Your task to perform on an android device: change the upload size in google photos Image 0: 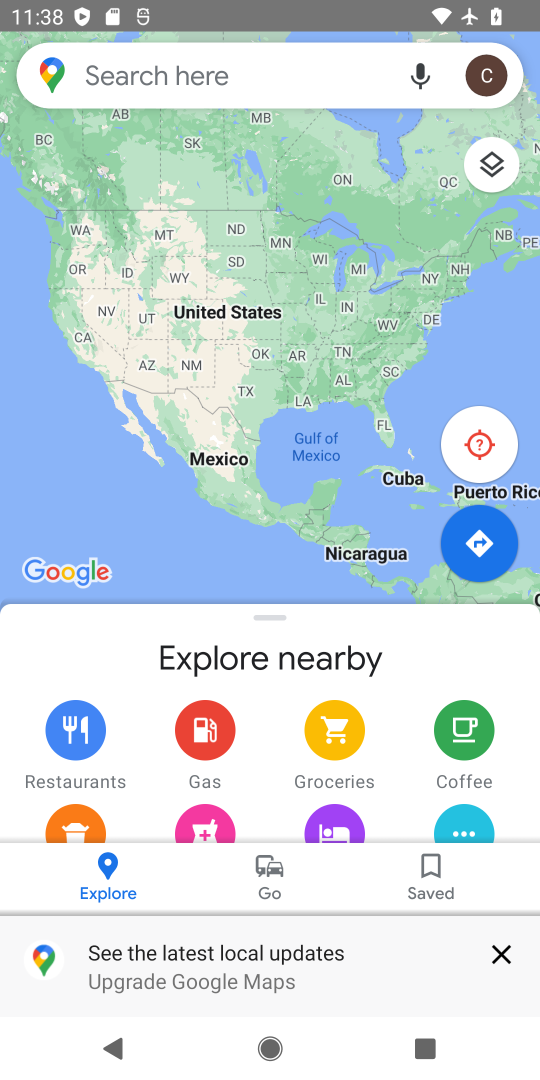
Step 0: press home button
Your task to perform on an android device: change the upload size in google photos Image 1: 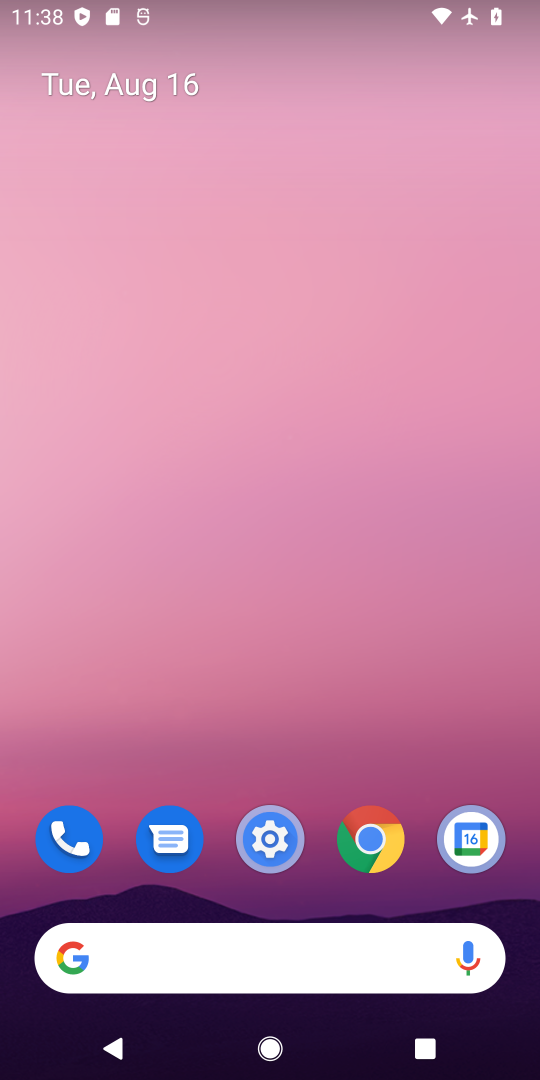
Step 1: drag from (216, 711) to (286, 0)
Your task to perform on an android device: change the upload size in google photos Image 2: 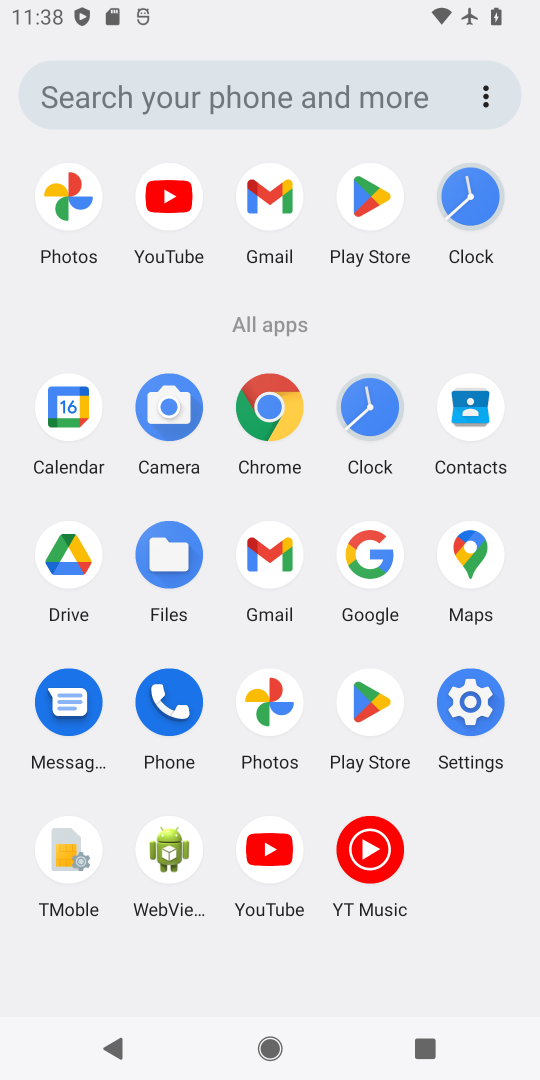
Step 2: click (276, 724)
Your task to perform on an android device: change the upload size in google photos Image 3: 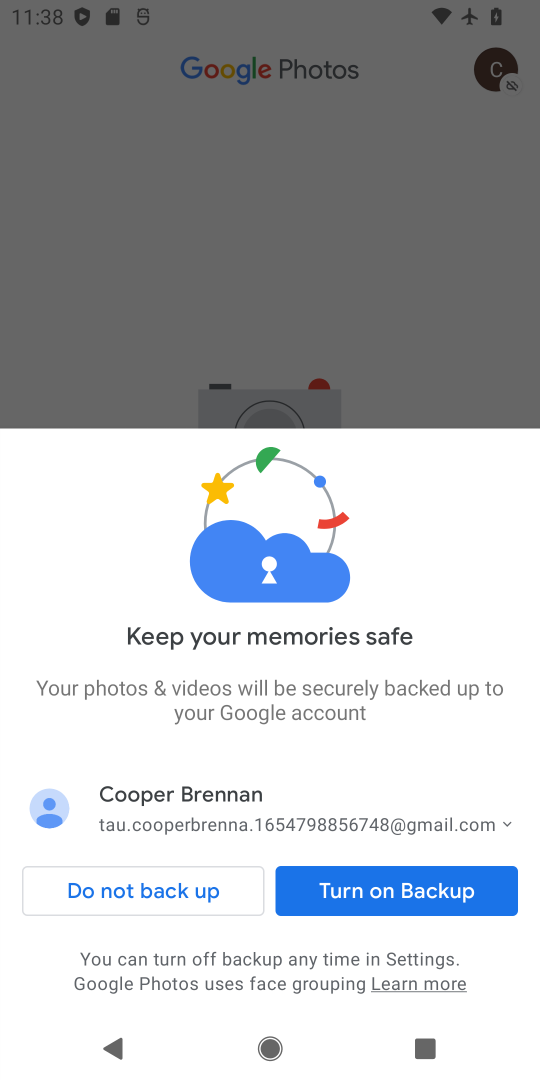
Step 3: click (209, 888)
Your task to perform on an android device: change the upload size in google photos Image 4: 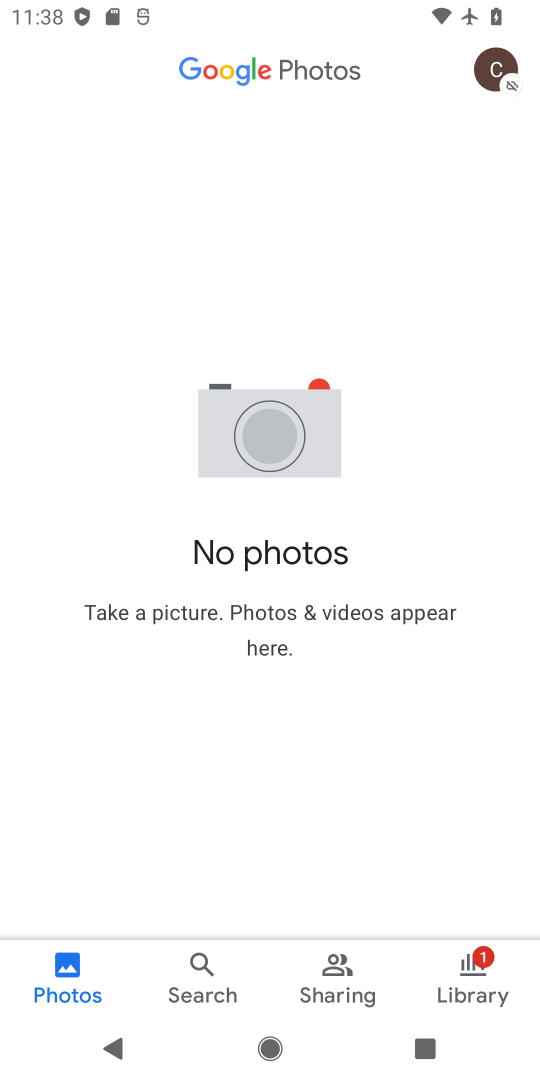
Step 4: click (501, 75)
Your task to perform on an android device: change the upload size in google photos Image 5: 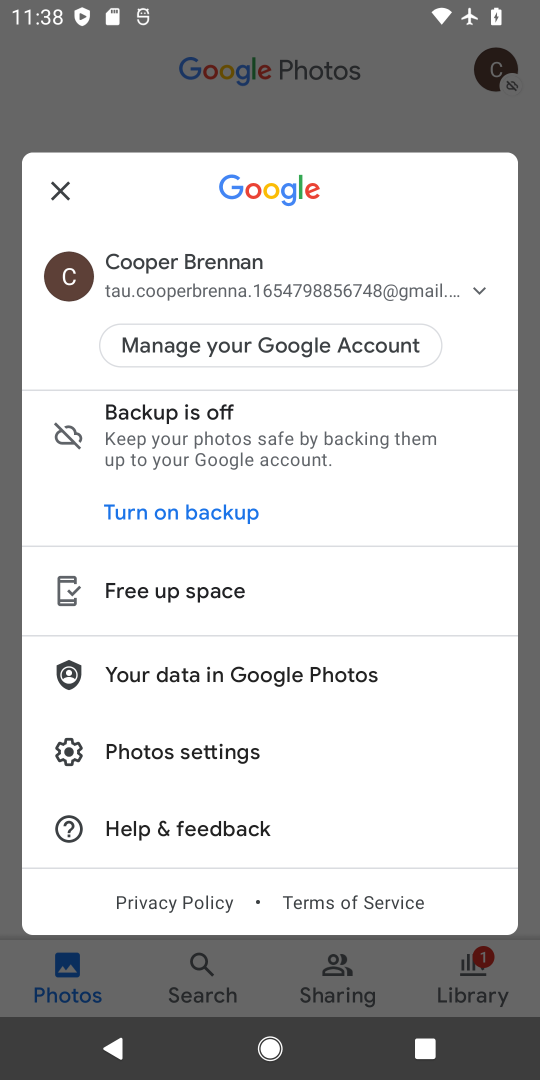
Step 5: click (243, 761)
Your task to perform on an android device: change the upload size in google photos Image 6: 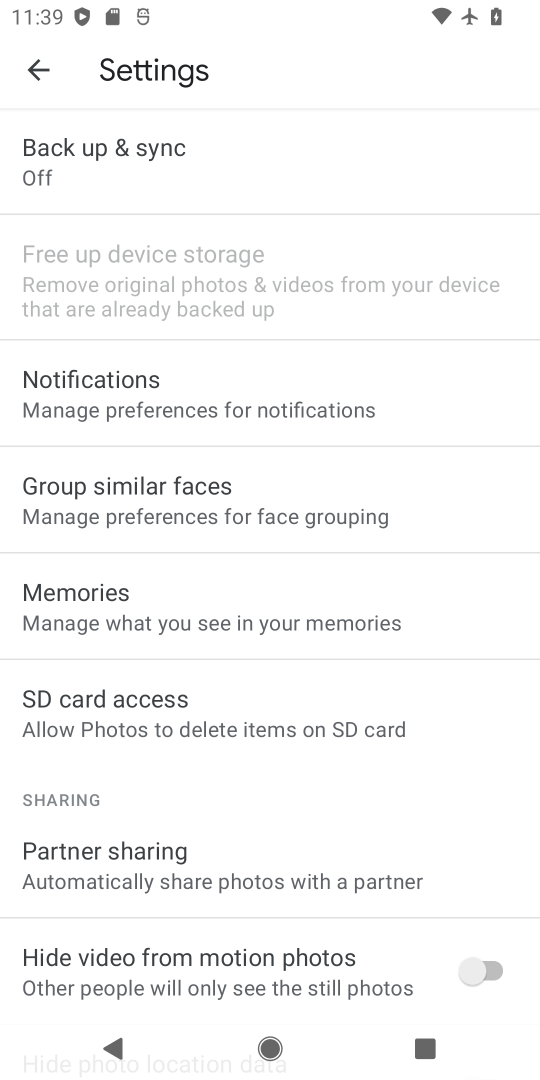
Step 6: click (140, 160)
Your task to perform on an android device: change the upload size in google photos Image 7: 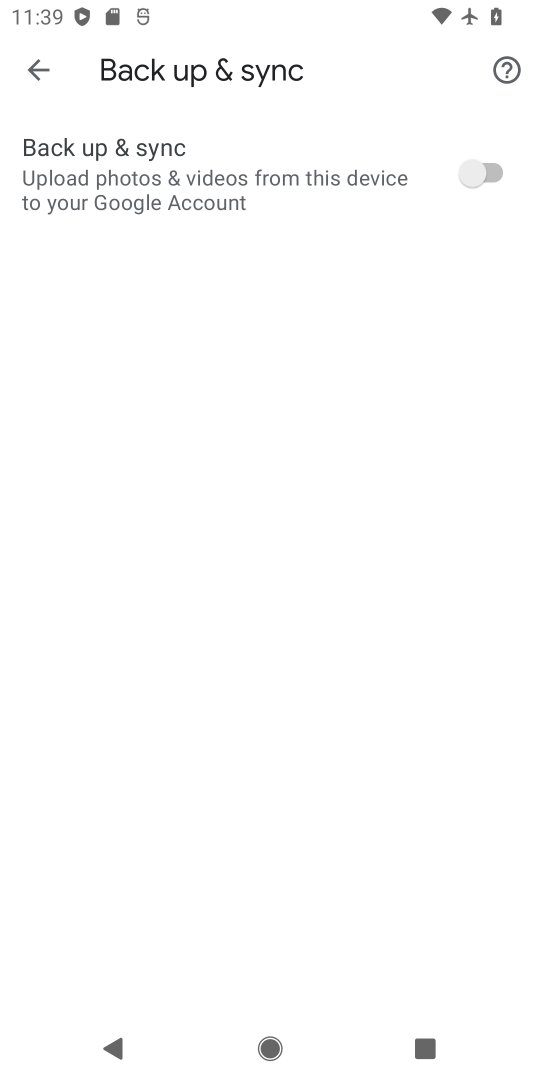
Step 7: click (425, 159)
Your task to perform on an android device: change the upload size in google photos Image 8: 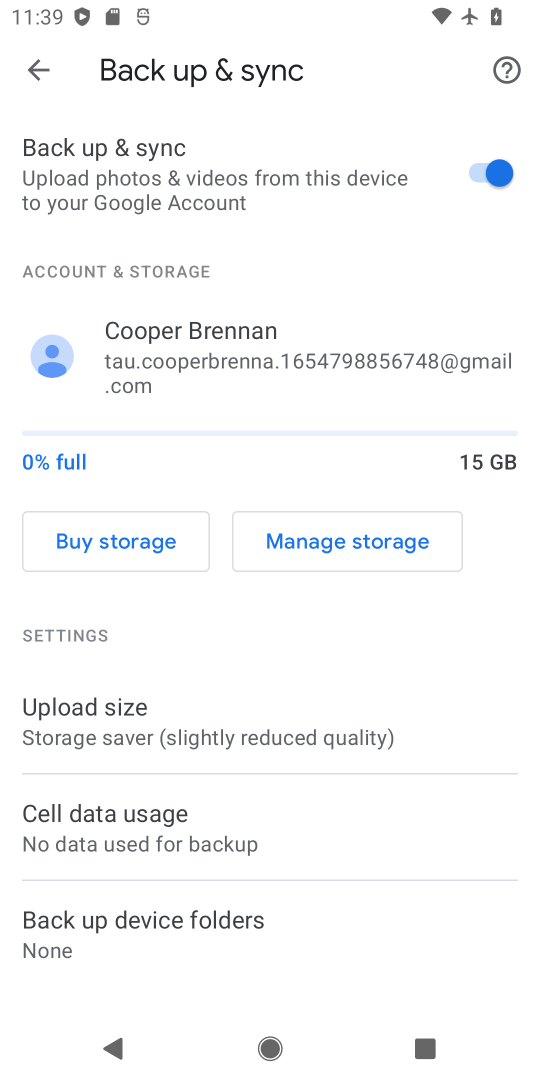
Step 8: click (149, 729)
Your task to perform on an android device: change the upload size in google photos Image 9: 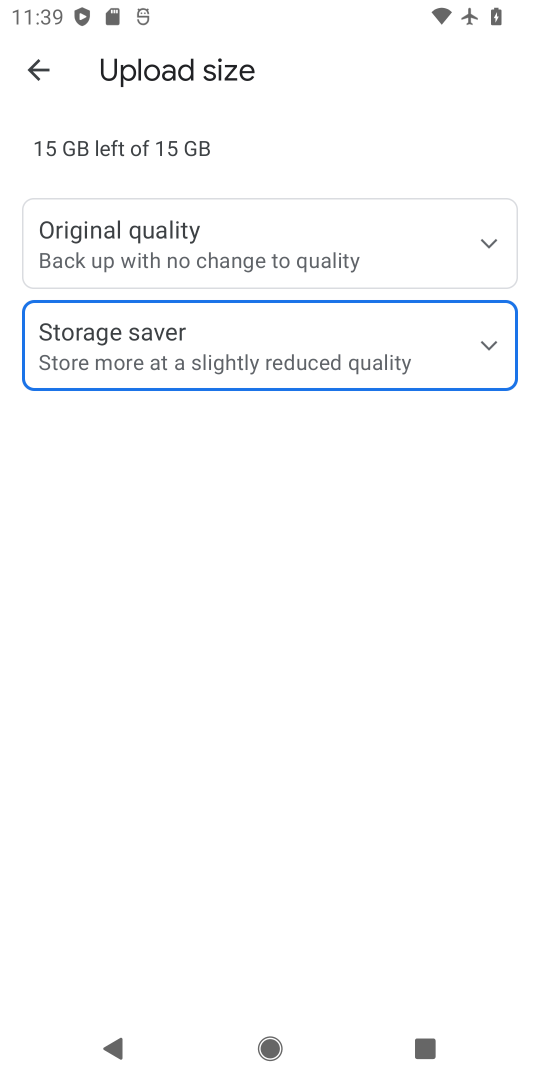
Step 9: click (215, 257)
Your task to perform on an android device: change the upload size in google photos Image 10: 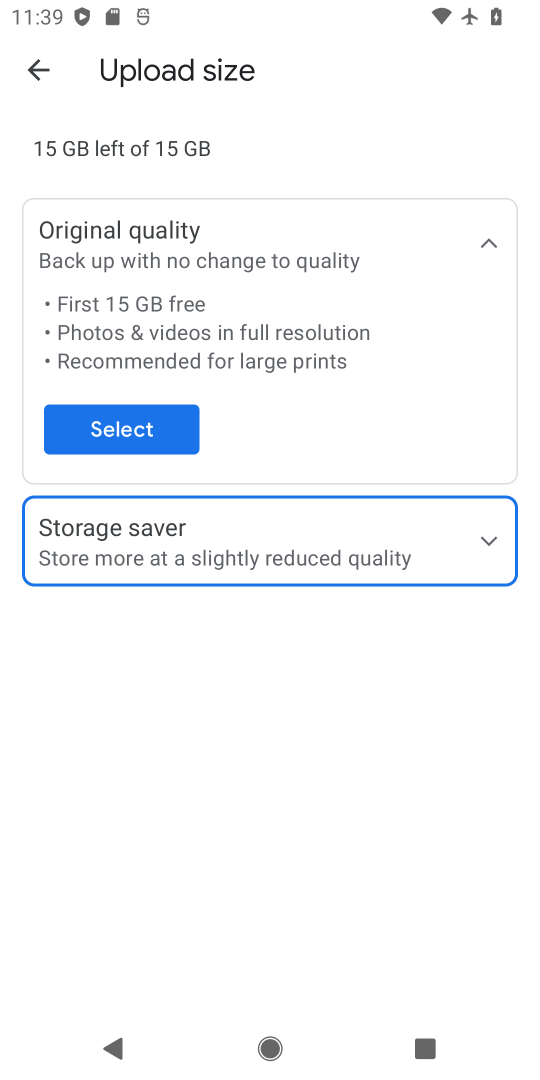
Step 10: click (117, 433)
Your task to perform on an android device: change the upload size in google photos Image 11: 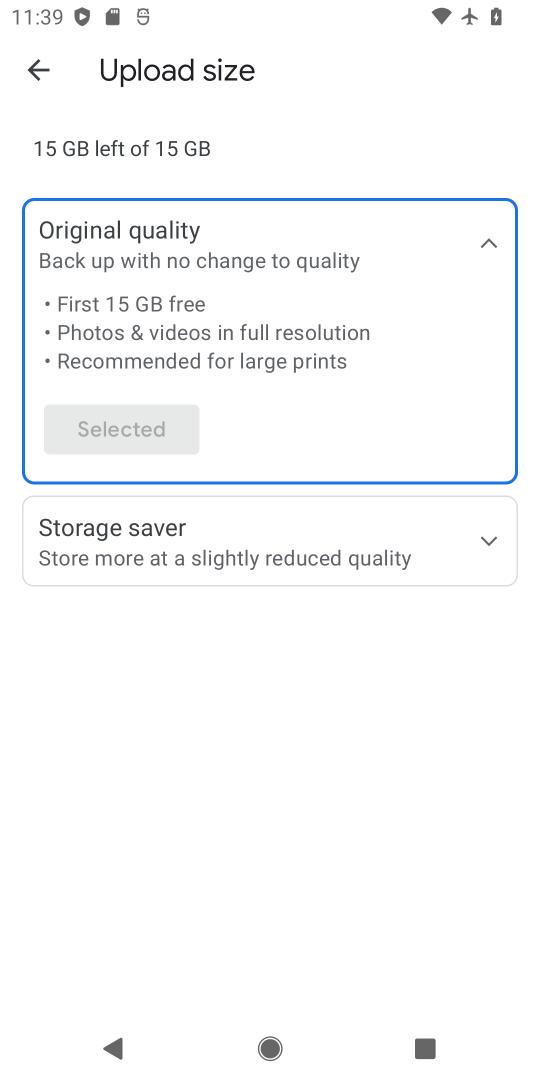
Step 11: task complete